Your task to perform on an android device: clear history in the chrome app Image 0: 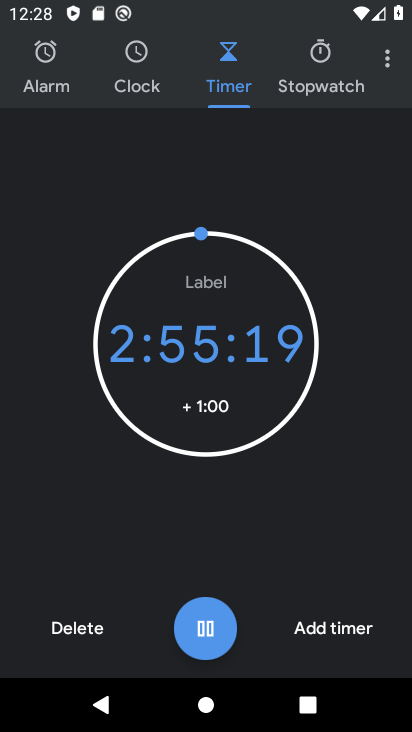
Step 0: press back button
Your task to perform on an android device: clear history in the chrome app Image 1: 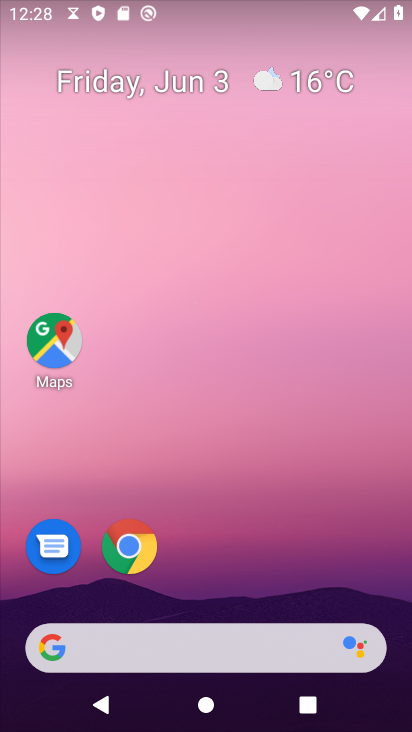
Step 1: click (124, 544)
Your task to perform on an android device: clear history in the chrome app Image 2: 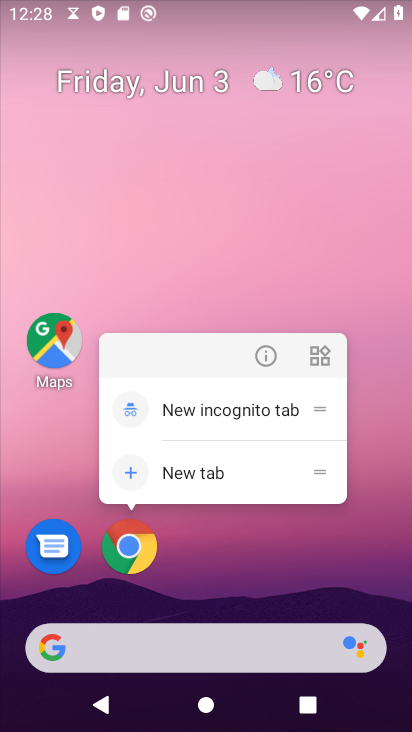
Step 2: click (134, 544)
Your task to perform on an android device: clear history in the chrome app Image 3: 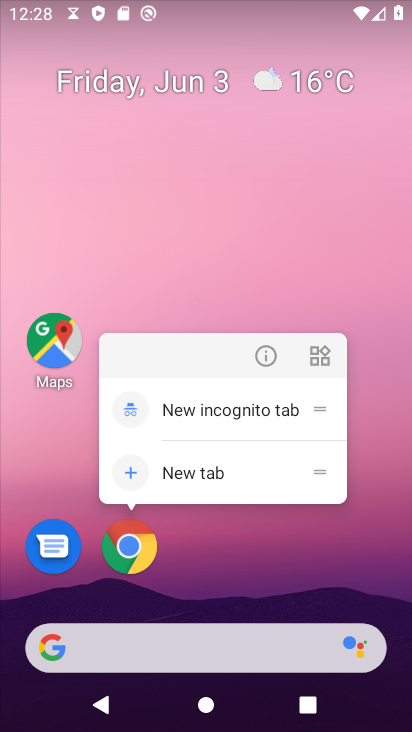
Step 3: click (133, 551)
Your task to perform on an android device: clear history in the chrome app Image 4: 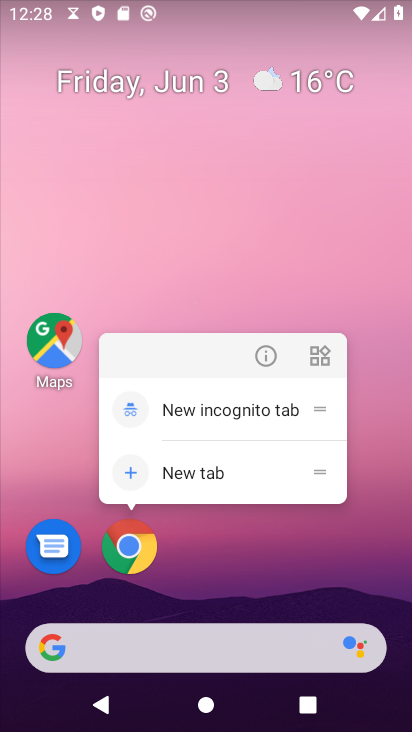
Step 4: click (137, 557)
Your task to perform on an android device: clear history in the chrome app Image 5: 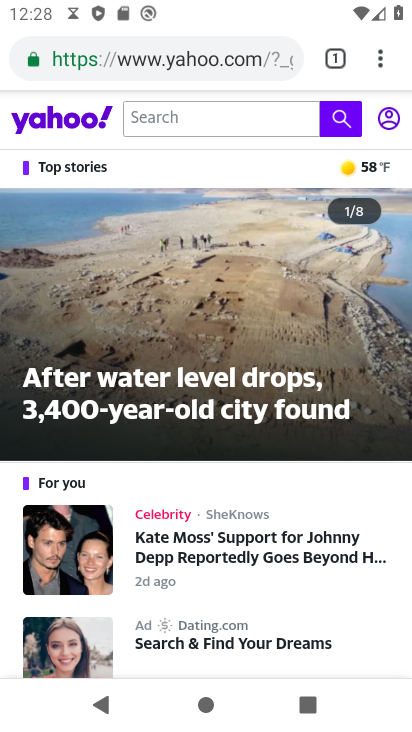
Step 5: drag from (377, 57) to (156, 321)
Your task to perform on an android device: clear history in the chrome app Image 6: 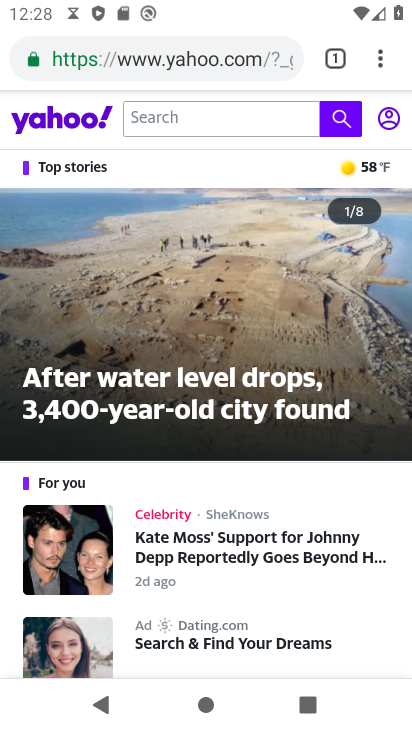
Step 6: click (188, 332)
Your task to perform on an android device: clear history in the chrome app Image 7: 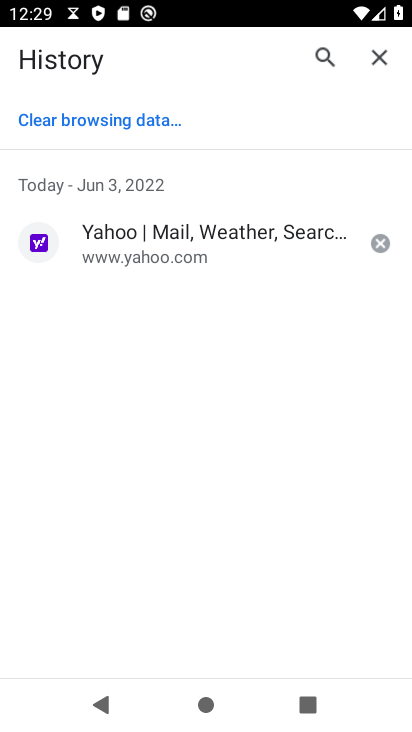
Step 7: click (121, 113)
Your task to perform on an android device: clear history in the chrome app Image 8: 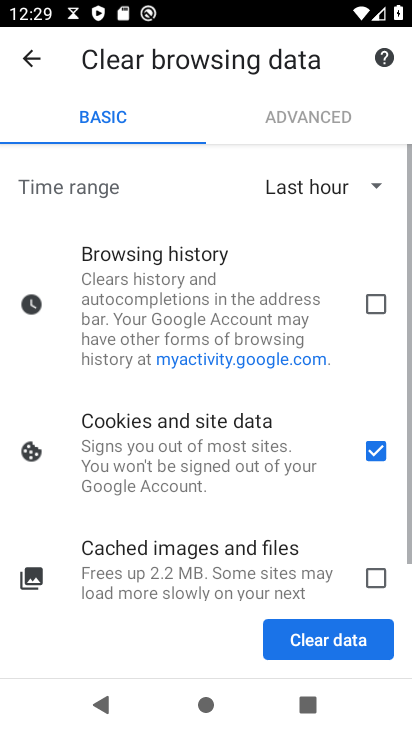
Step 8: click (360, 307)
Your task to perform on an android device: clear history in the chrome app Image 9: 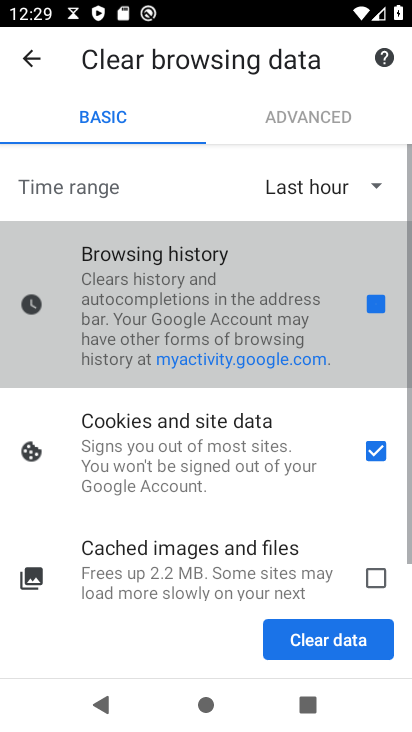
Step 9: click (373, 571)
Your task to perform on an android device: clear history in the chrome app Image 10: 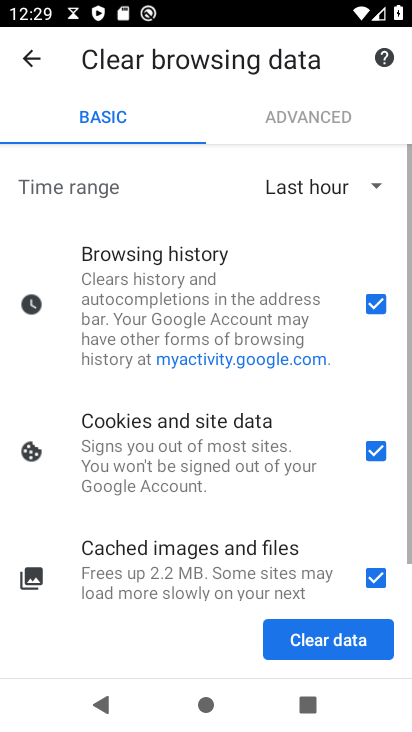
Step 10: click (331, 636)
Your task to perform on an android device: clear history in the chrome app Image 11: 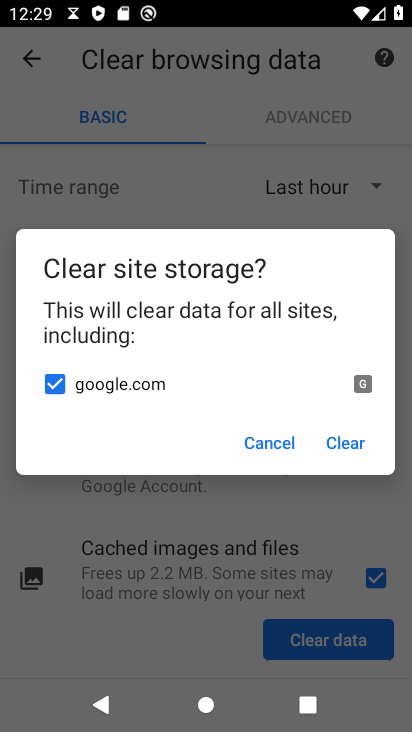
Step 11: click (353, 437)
Your task to perform on an android device: clear history in the chrome app Image 12: 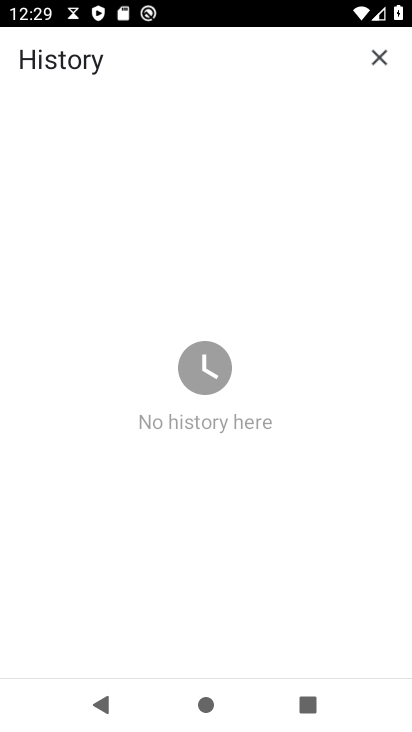
Step 12: task complete